Your task to perform on an android device: Open the web browser Image 0: 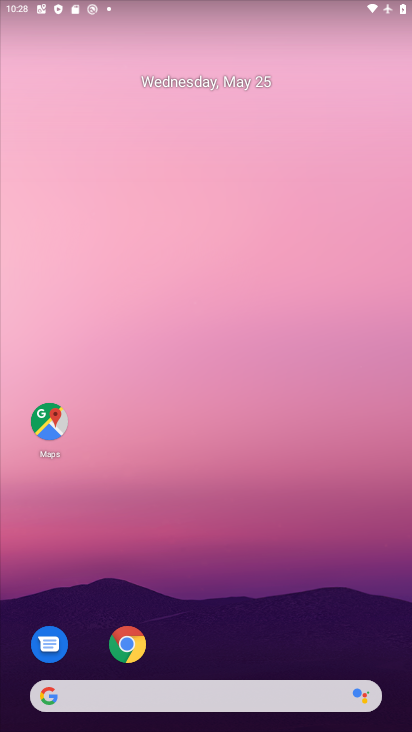
Step 0: drag from (199, 604) to (228, 117)
Your task to perform on an android device: Open the web browser Image 1: 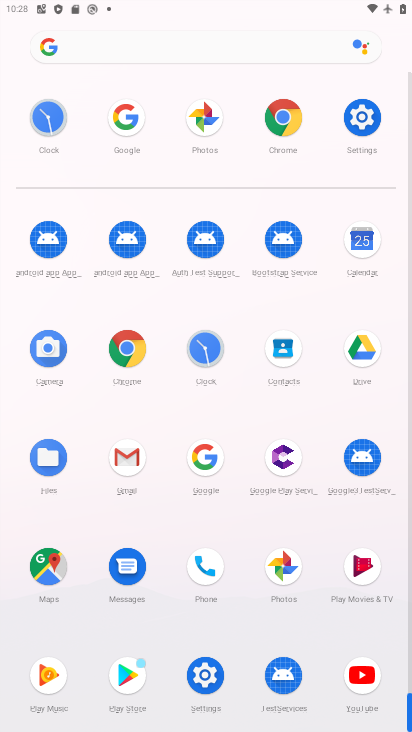
Step 1: click (124, 116)
Your task to perform on an android device: Open the web browser Image 2: 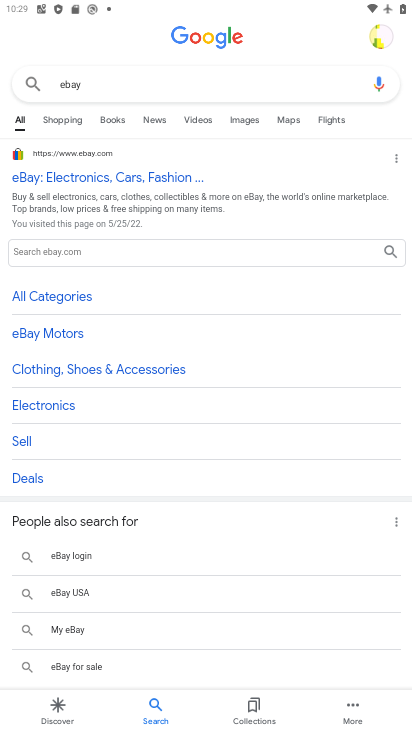
Step 2: task complete